Your task to perform on an android device: remove spam from my inbox in the gmail app Image 0: 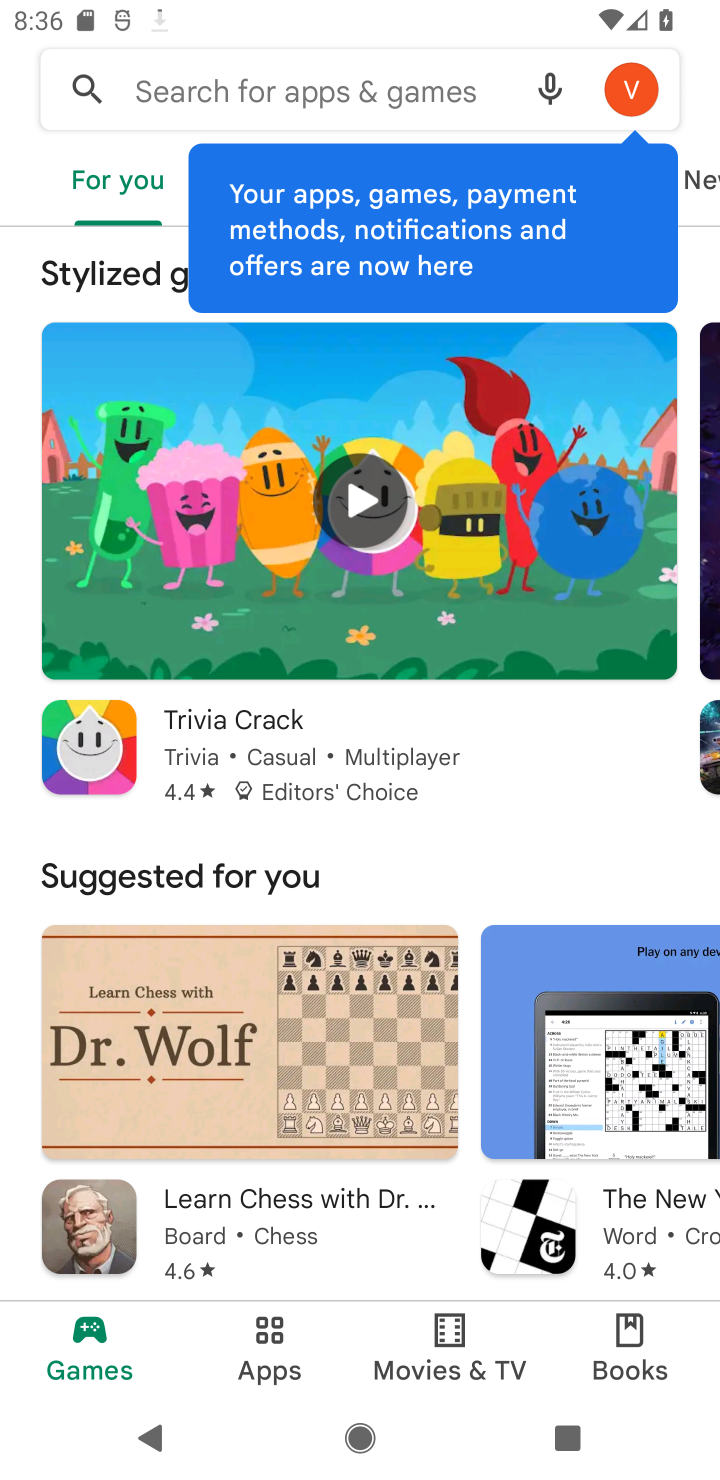
Step 0: press home button
Your task to perform on an android device: remove spam from my inbox in the gmail app Image 1: 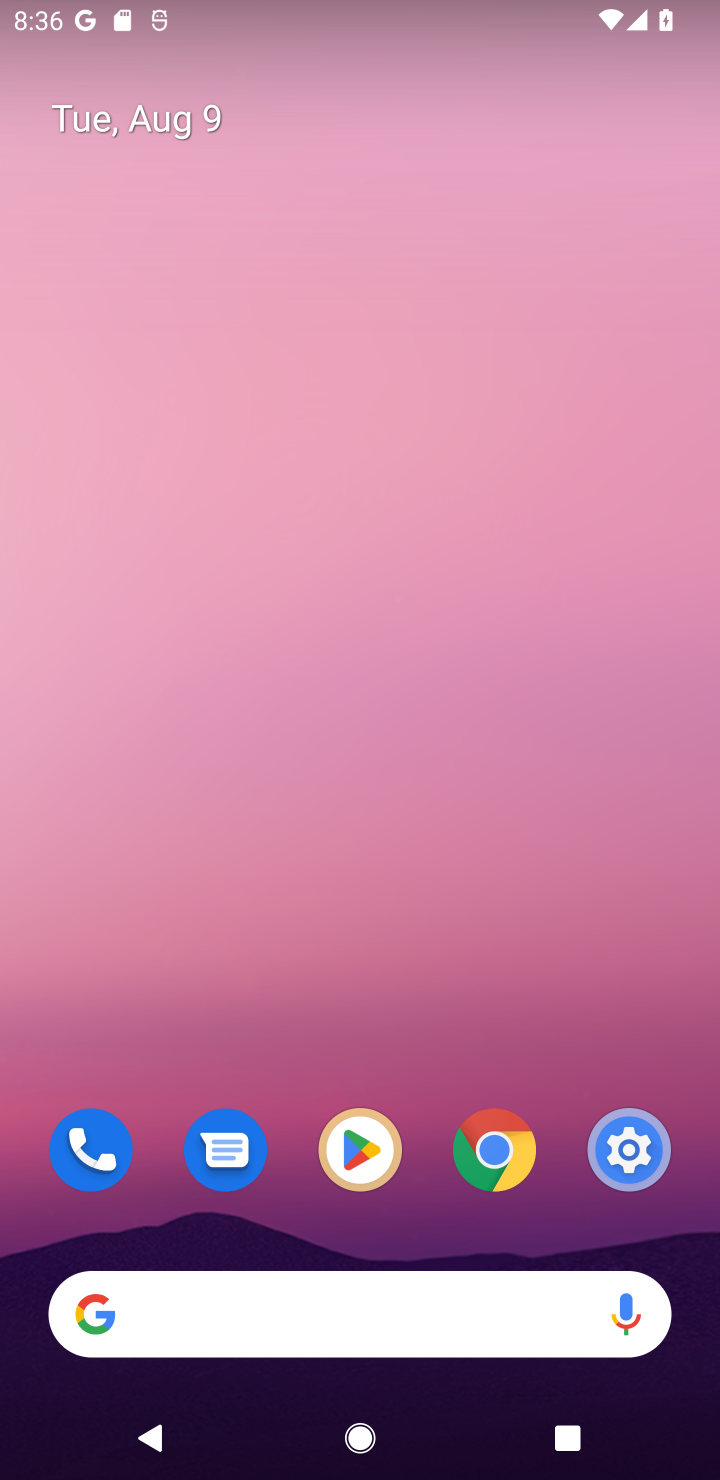
Step 1: drag from (457, 1190) to (475, 19)
Your task to perform on an android device: remove spam from my inbox in the gmail app Image 2: 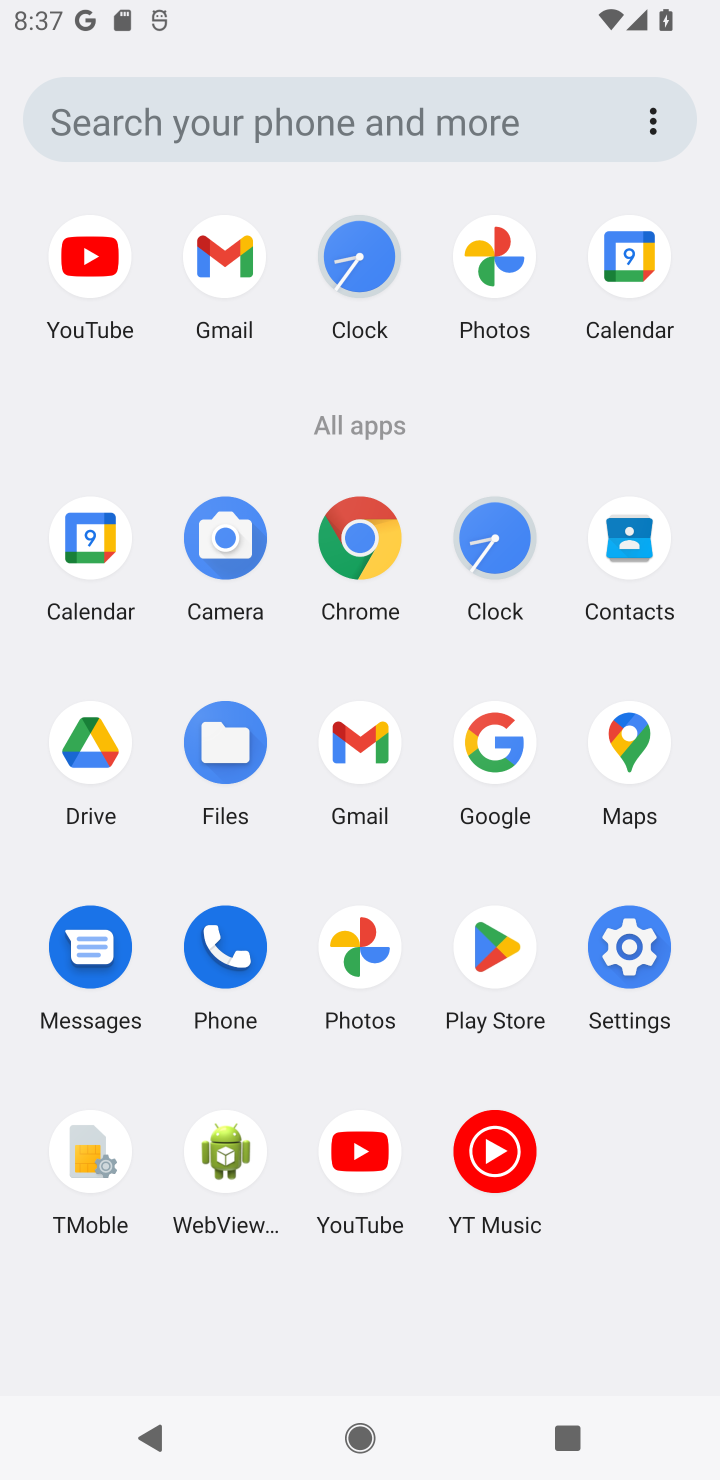
Step 2: click (362, 763)
Your task to perform on an android device: remove spam from my inbox in the gmail app Image 3: 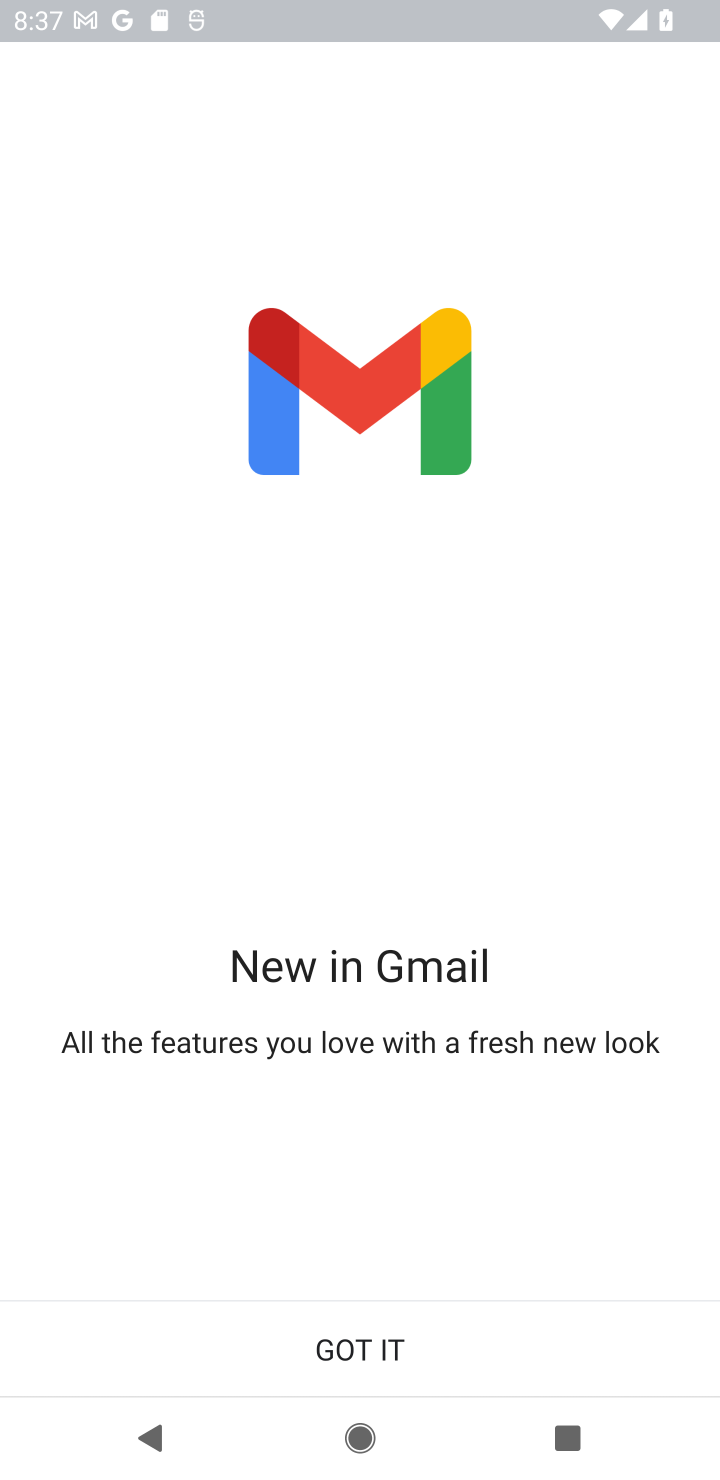
Step 3: click (390, 1357)
Your task to perform on an android device: remove spam from my inbox in the gmail app Image 4: 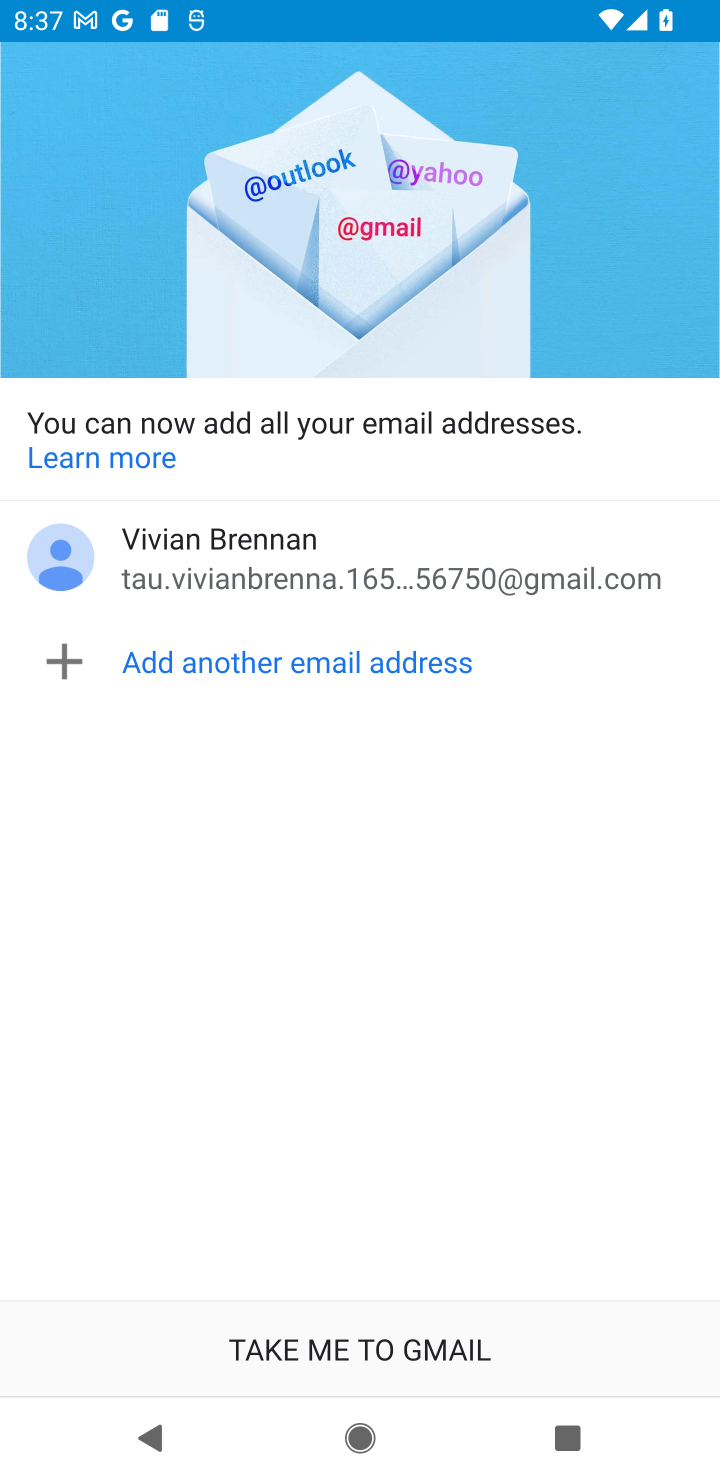
Step 4: click (403, 1333)
Your task to perform on an android device: remove spam from my inbox in the gmail app Image 5: 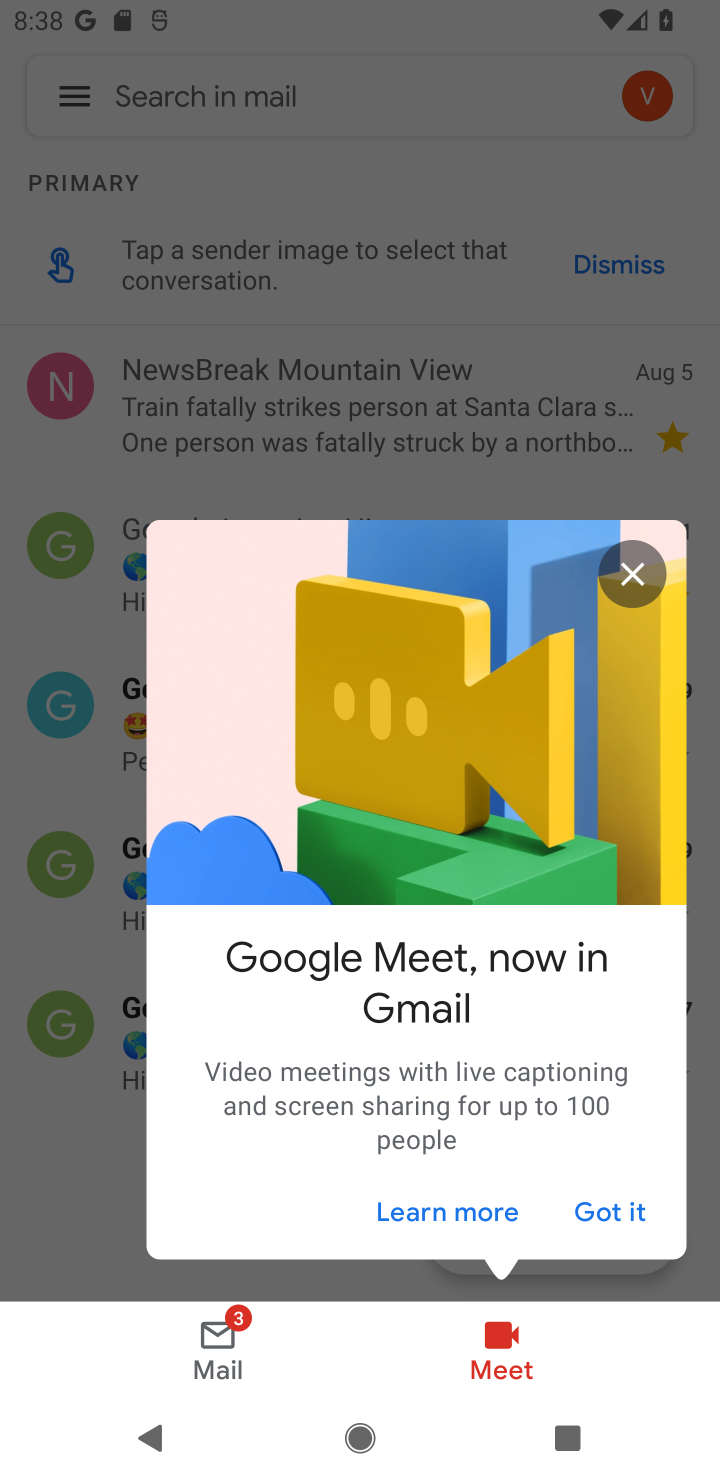
Step 5: click (632, 583)
Your task to perform on an android device: remove spam from my inbox in the gmail app Image 6: 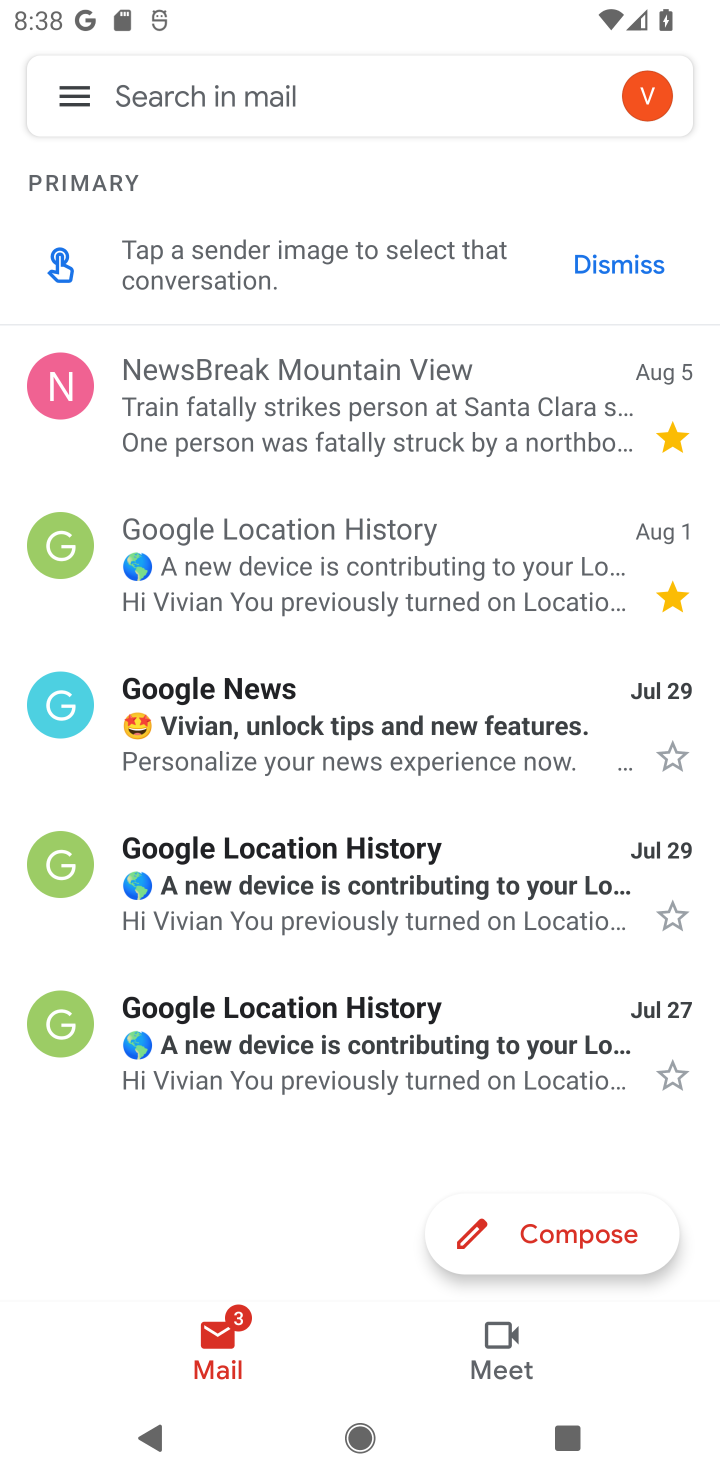
Step 6: click (62, 96)
Your task to perform on an android device: remove spam from my inbox in the gmail app Image 7: 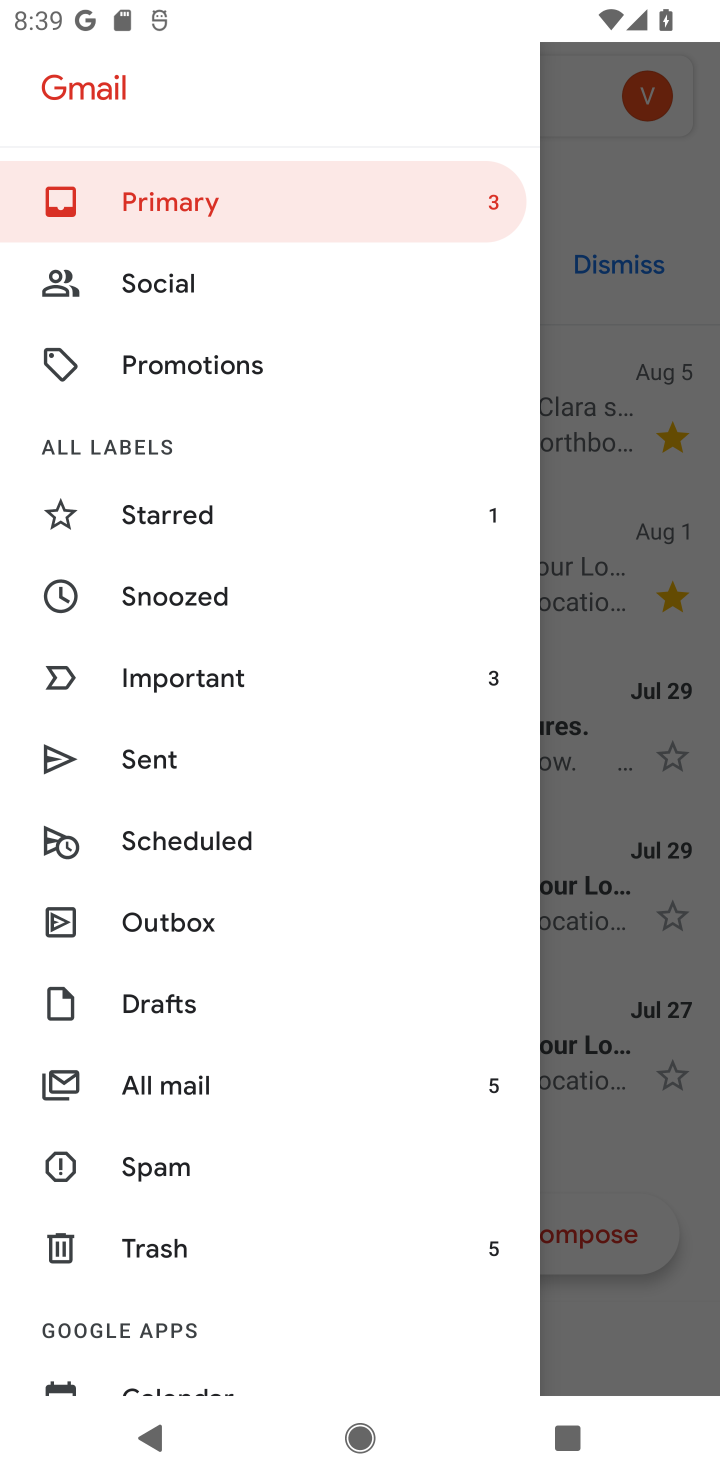
Step 7: click (136, 1174)
Your task to perform on an android device: remove spam from my inbox in the gmail app Image 8: 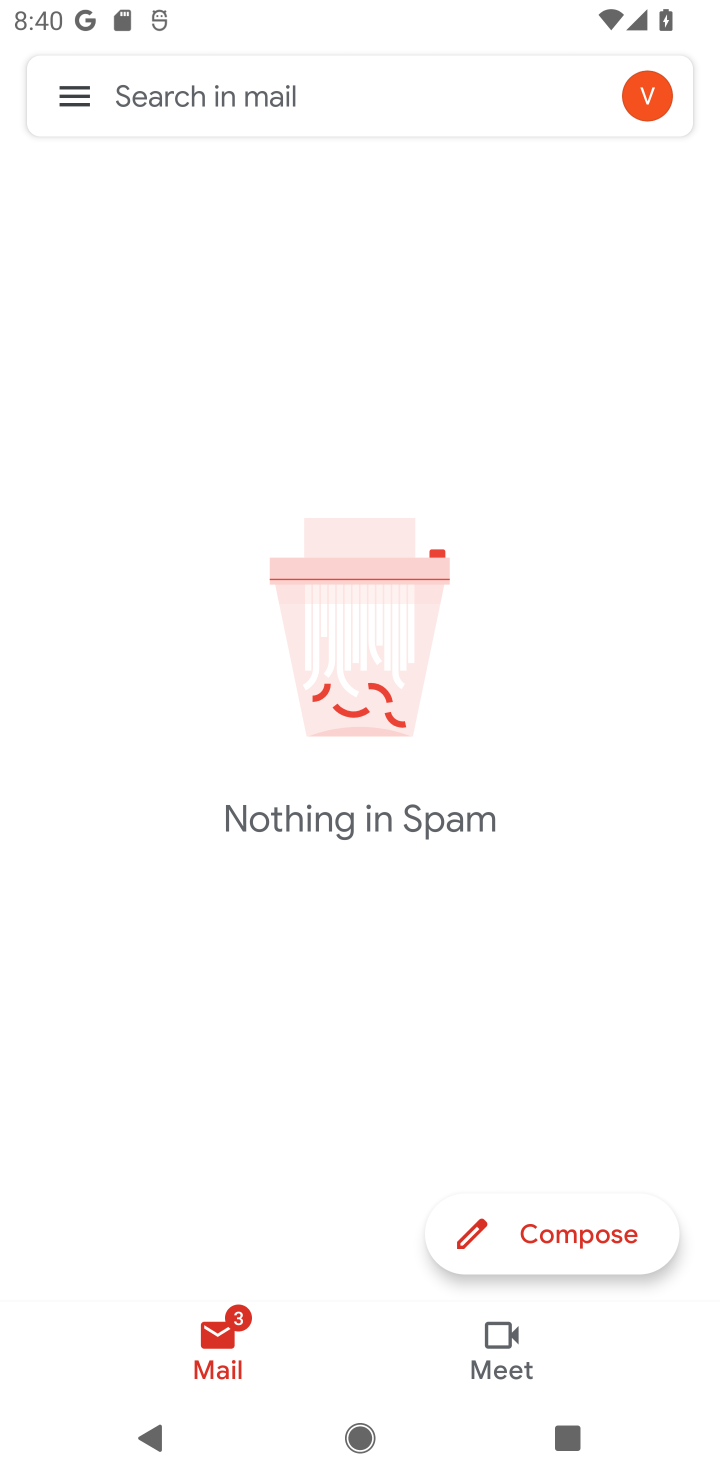
Step 8: task complete